Your task to perform on an android device: Empty the shopping cart on ebay.com. Add "usb-c to usb-b" to the cart on ebay.com, then select checkout. Image 0: 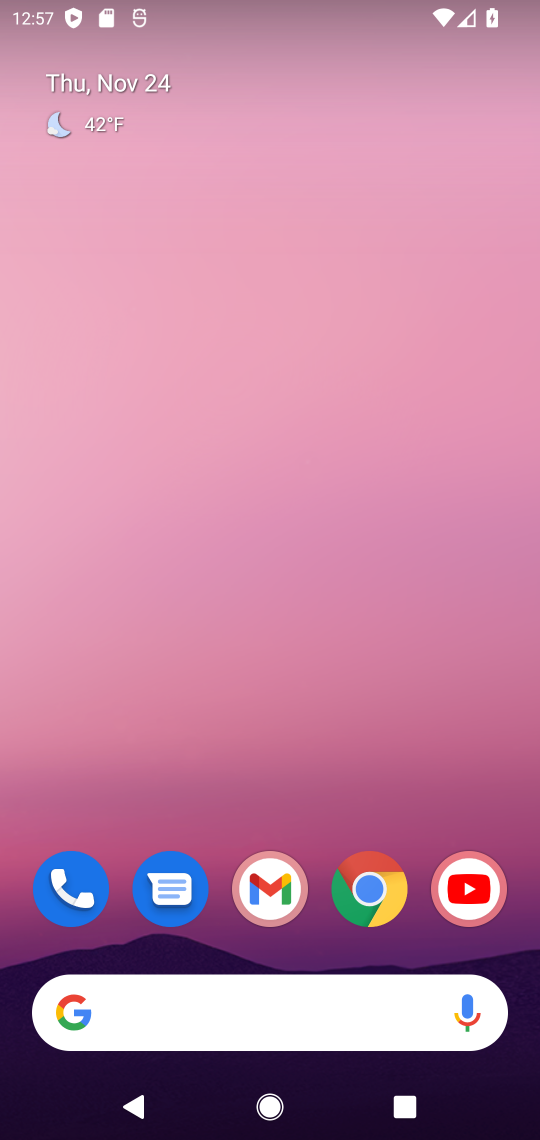
Step 0: click (371, 886)
Your task to perform on an android device: Empty the shopping cart on ebay.com. Add "usb-c to usb-b" to the cart on ebay.com, then select checkout. Image 1: 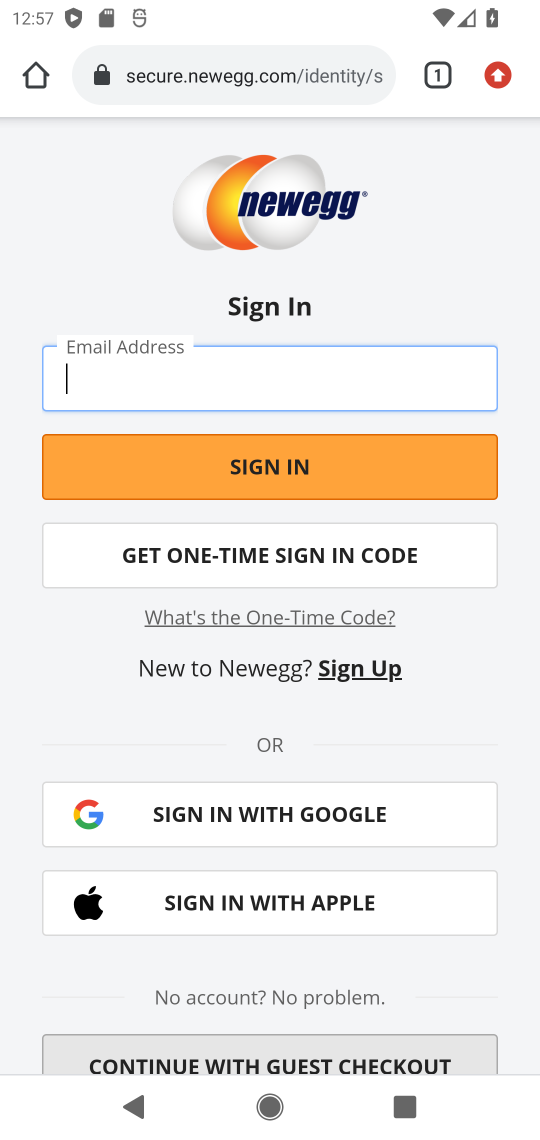
Step 1: click (198, 85)
Your task to perform on an android device: Empty the shopping cart on ebay.com. Add "usb-c to usb-b" to the cart on ebay.com, then select checkout. Image 2: 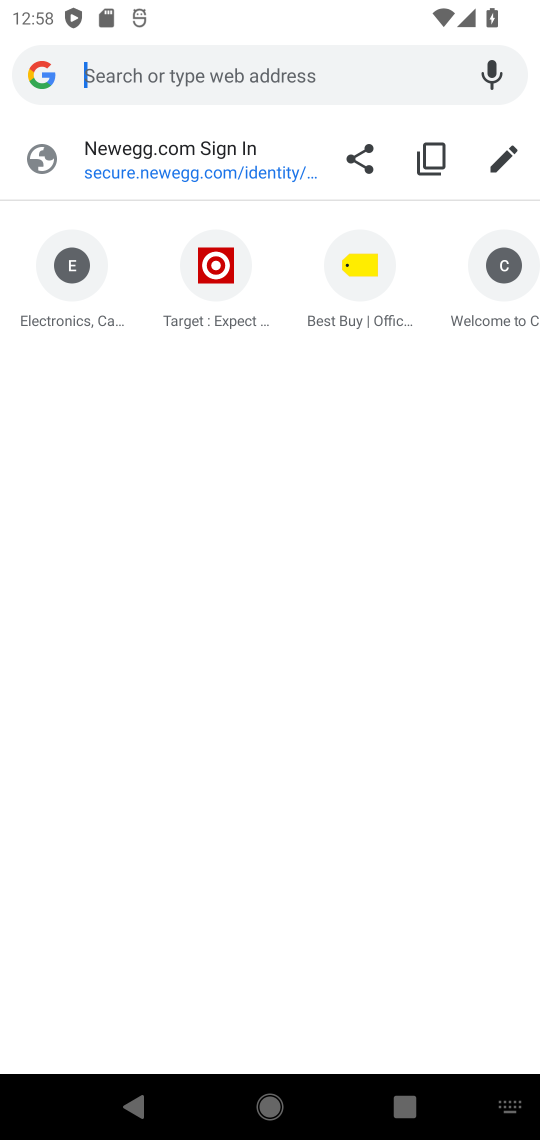
Step 2: type "ebay.com"
Your task to perform on an android device: Empty the shopping cart on ebay.com. Add "usb-c to usb-b" to the cart on ebay.com, then select checkout. Image 3: 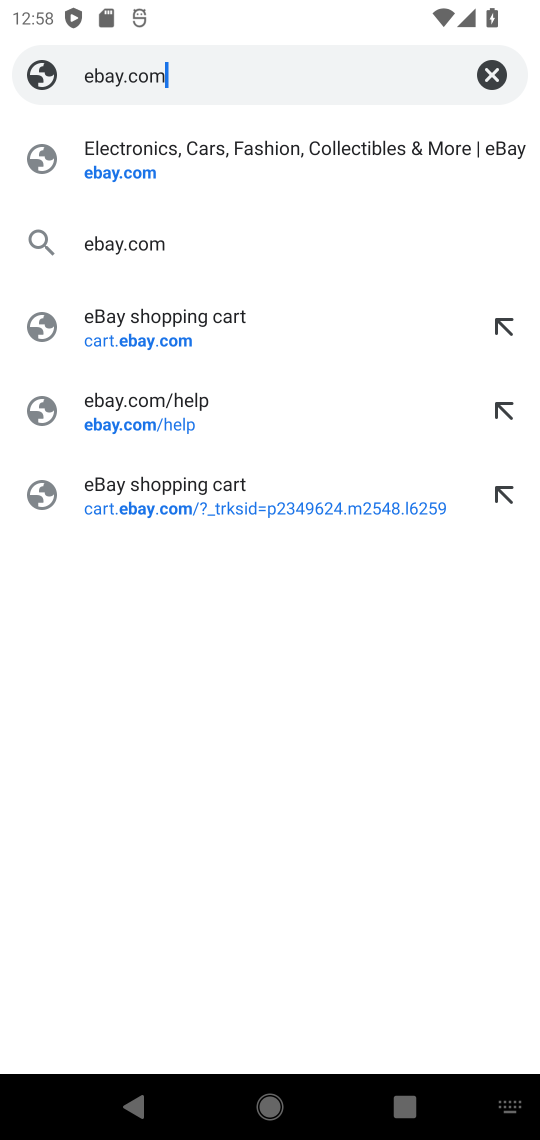
Step 3: click (101, 164)
Your task to perform on an android device: Empty the shopping cart on ebay.com. Add "usb-c to usb-b" to the cart on ebay.com, then select checkout. Image 4: 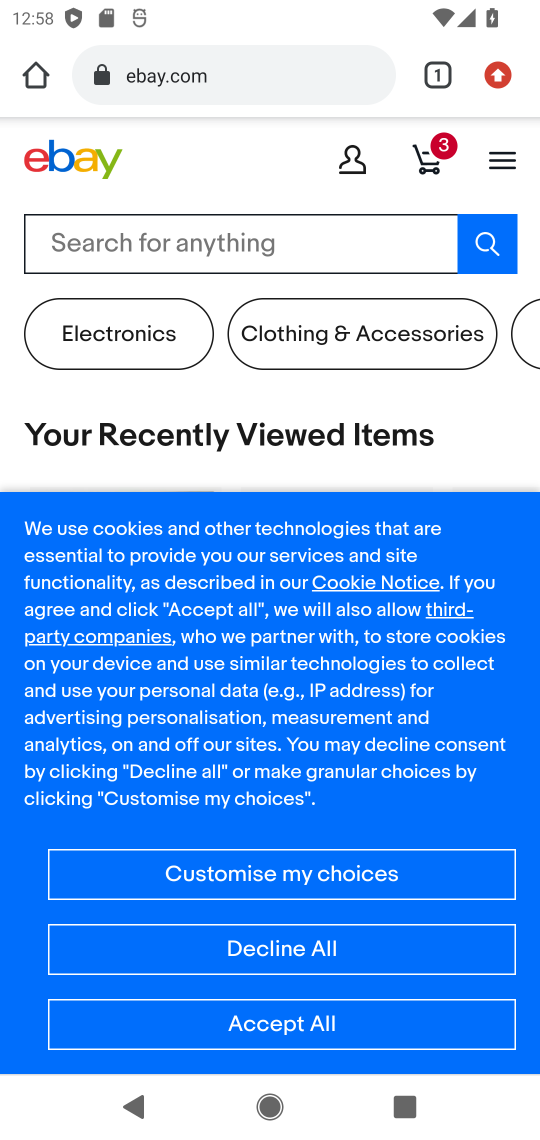
Step 4: click (435, 153)
Your task to perform on an android device: Empty the shopping cart on ebay.com. Add "usb-c to usb-b" to the cart on ebay.com, then select checkout. Image 5: 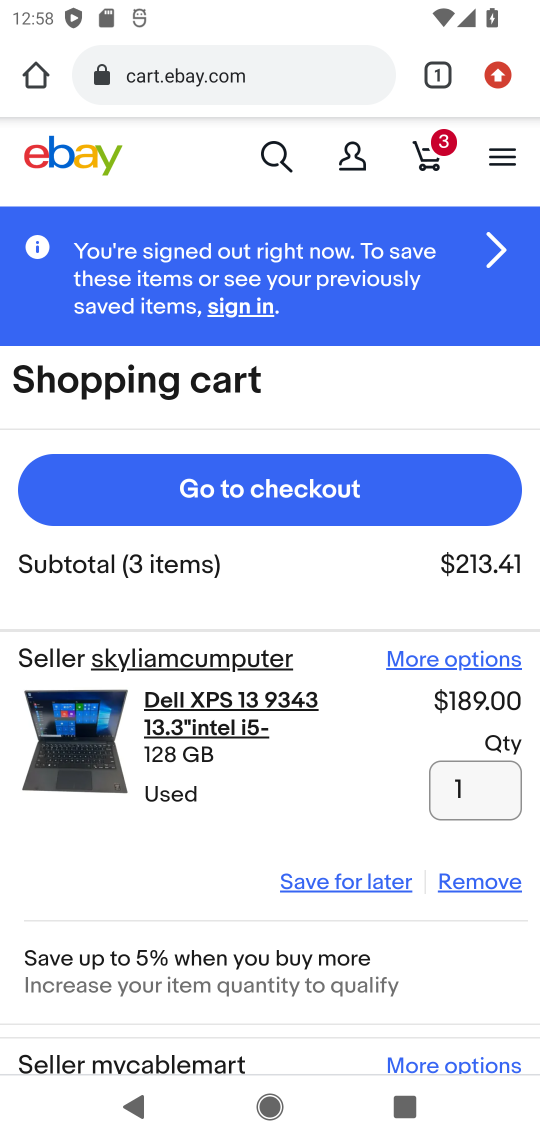
Step 5: click (496, 888)
Your task to perform on an android device: Empty the shopping cart on ebay.com. Add "usb-c to usb-b" to the cart on ebay.com, then select checkout. Image 6: 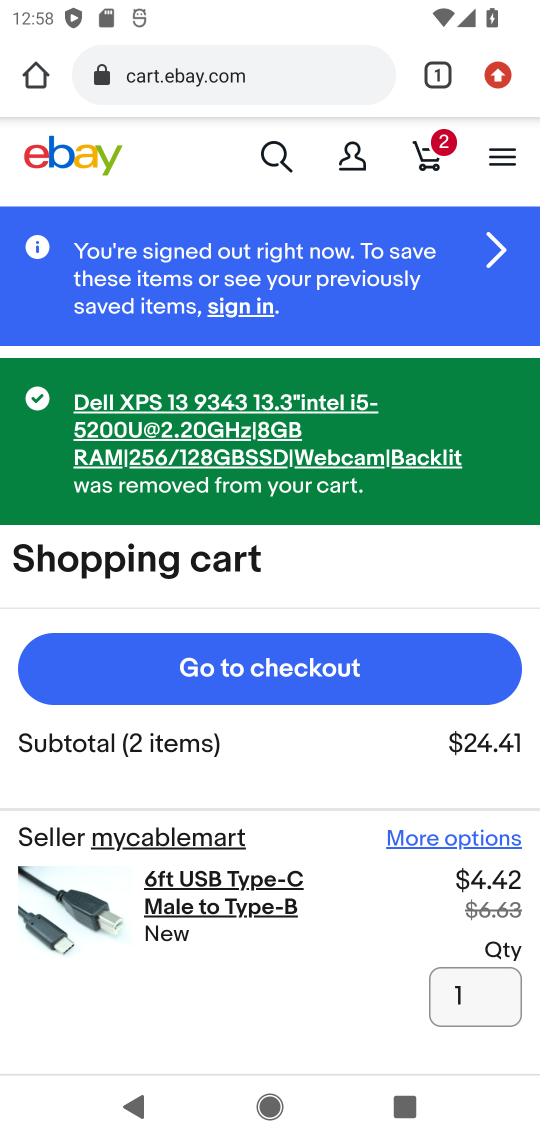
Step 6: drag from (340, 883) to (342, 530)
Your task to perform on an android device: Empty the shopping cart on ebay.com. Add "usb-c to usb-b" to the cart on ebay.com, then select checkout. Image 7: 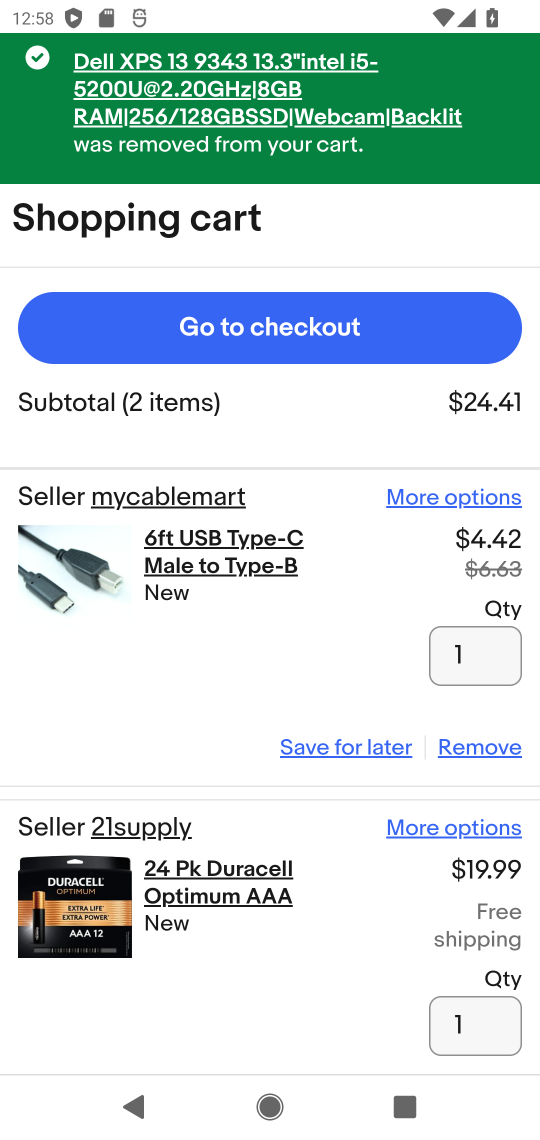
Step 7: click (467, 743)
Your task to perform on an android device: Empty the shopping cart on ebay.com. Add "usb-c to usb-b" to the cart on ebay.com, then select checkout. Image 8: 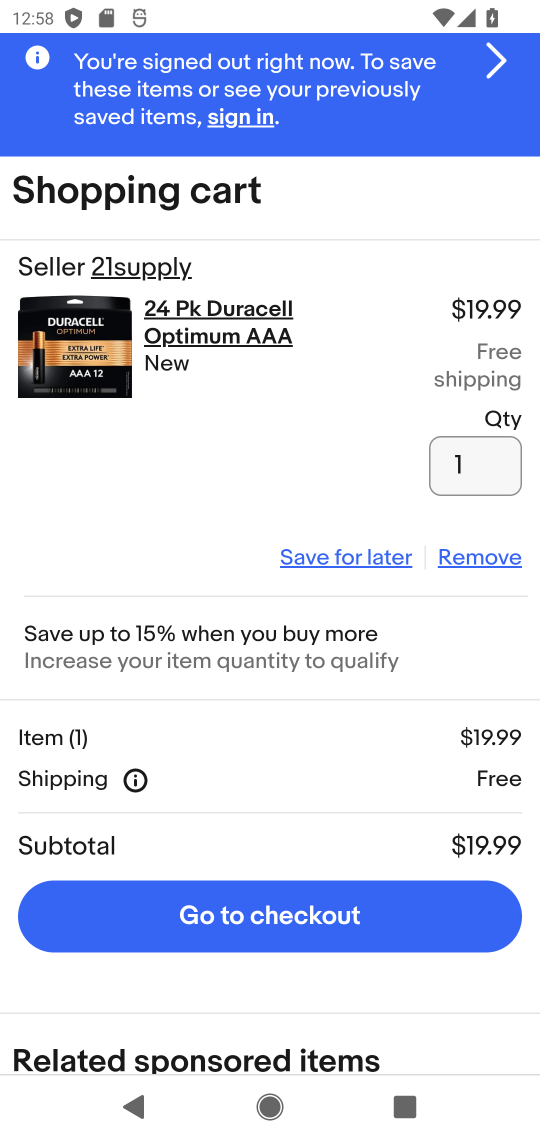
Step 8: drag from (337, 786) to (338, 678)
Your task to perform on an android device: Empty the shopping cart on ebay.com. Add "usb-c to usb-b" to the cart on ebay.com, then select checkout. Image 9: 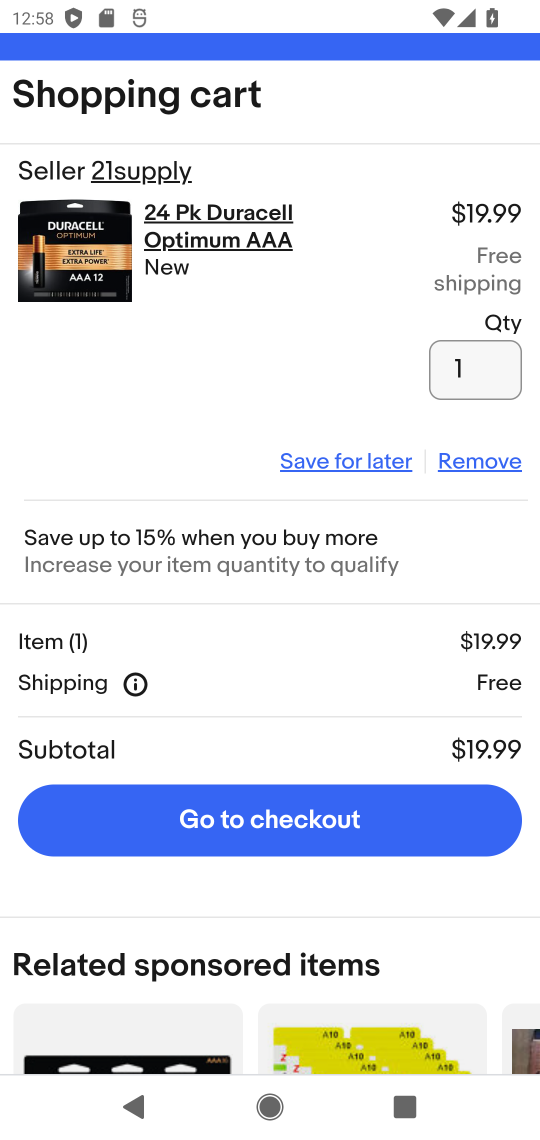
Step 9: click (486, 462)
Your task to perform on an android device: Empty the shopping cart on ebay.com. Add "usb-c to usb-b" to the cart on ebay.com, then select checkout. Image 10: 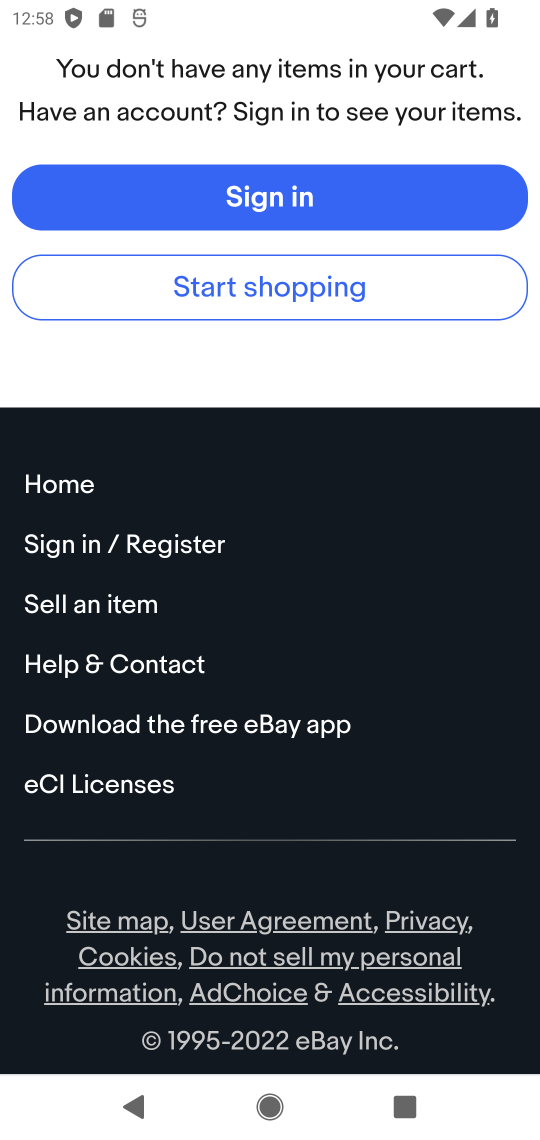
Step 10: drag from (366, 453) to (364, 655)
Your task to perform on an android device: Empty the shopping cart on ebay.com. Add "usb-c to usb-b" to the cart on ebay.com, then select checkout. Image 11: 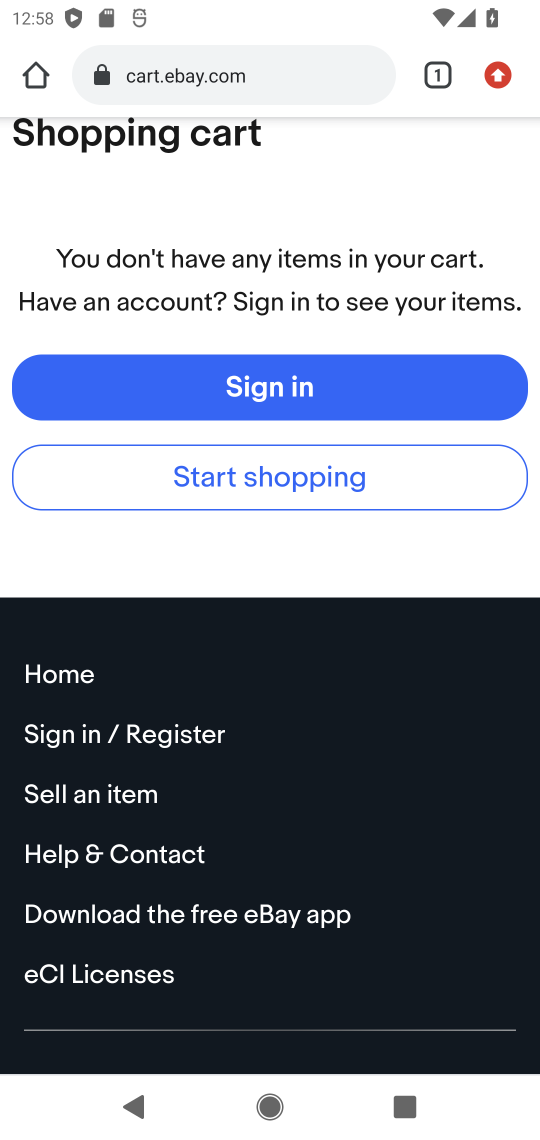
Step 11: drag from (364, 655) to (349, 846)
Your task to perform on an android device: Empty the shopping cart on ebay.com. Add "usb-c to usb-b" to the cart on ebay.com, then select checkout. Image 12: 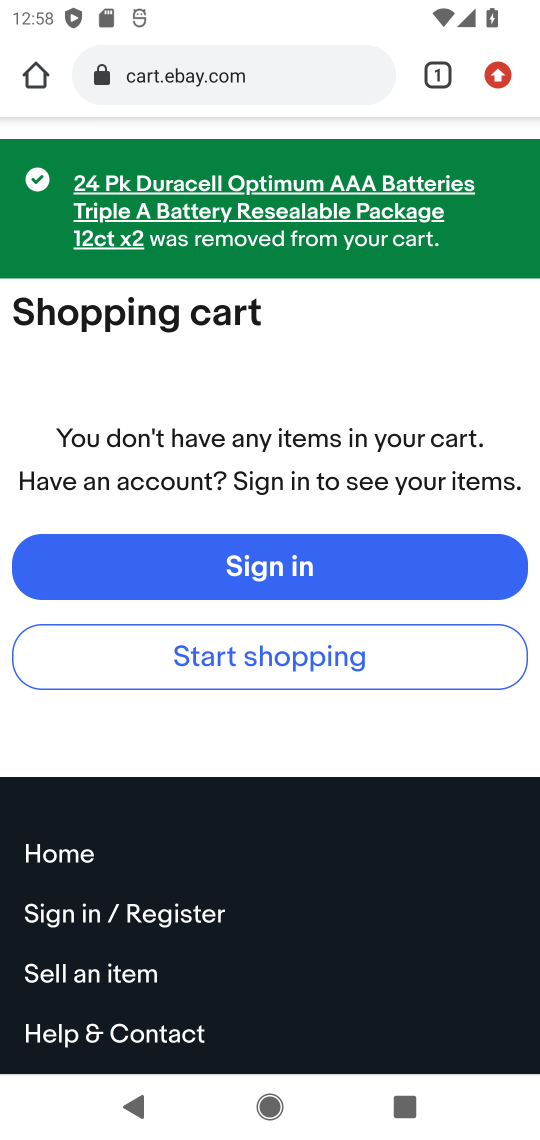
Step 12: drag from (265, 253) to (297, 454)
Your task to perform on an android device: Empty the shopping cart on ebay.com. Add "usb-c to usb-b" to the cart on ebay.com, then select checkout. Image 13: 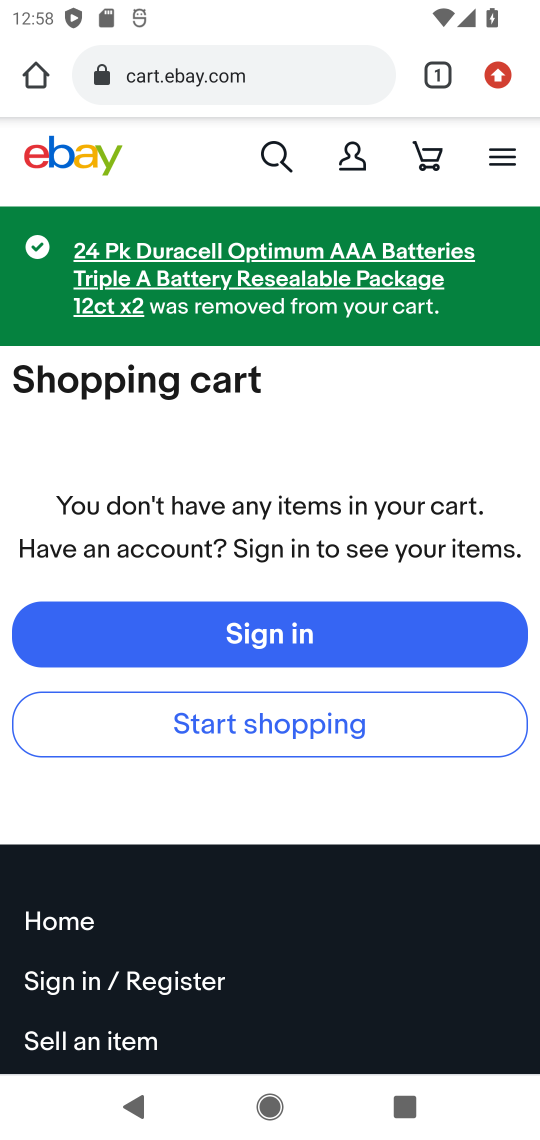
Step 13: click (266, 153)
Your task to perform on an android device: Empty the shopping cart on ebay.com. Add "usb-c to usb-b" to the cart on ebay.com, then select checkout. Image 14: 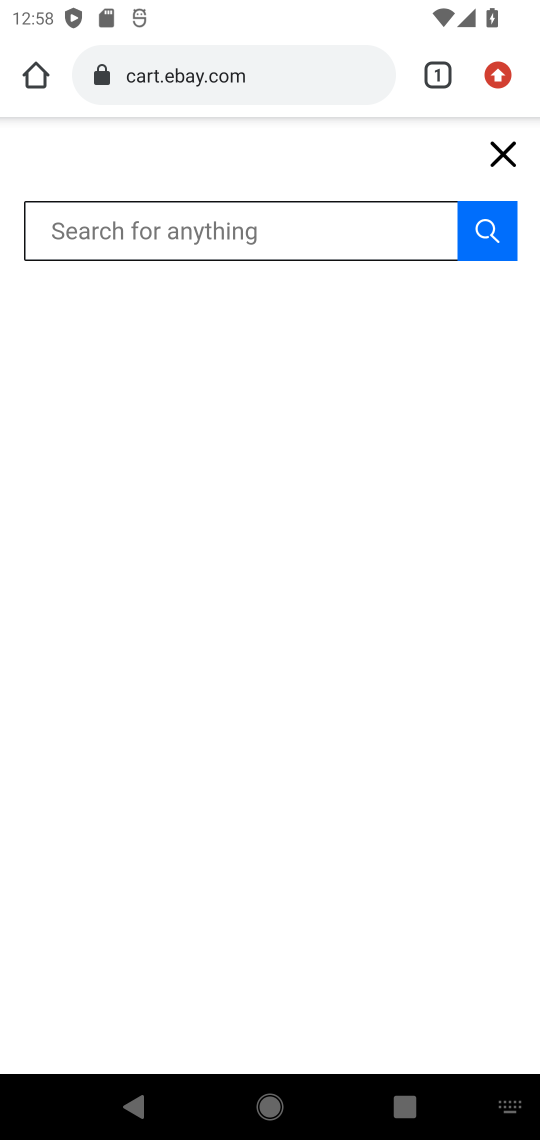
Step 14: type "usb-c to usb-b"
Your task to perform on an android device: Empty the shopping cart on ebay.com. Add "usb-c to usb-b" to the cart on ebay.com, then select checkout. Image 15: 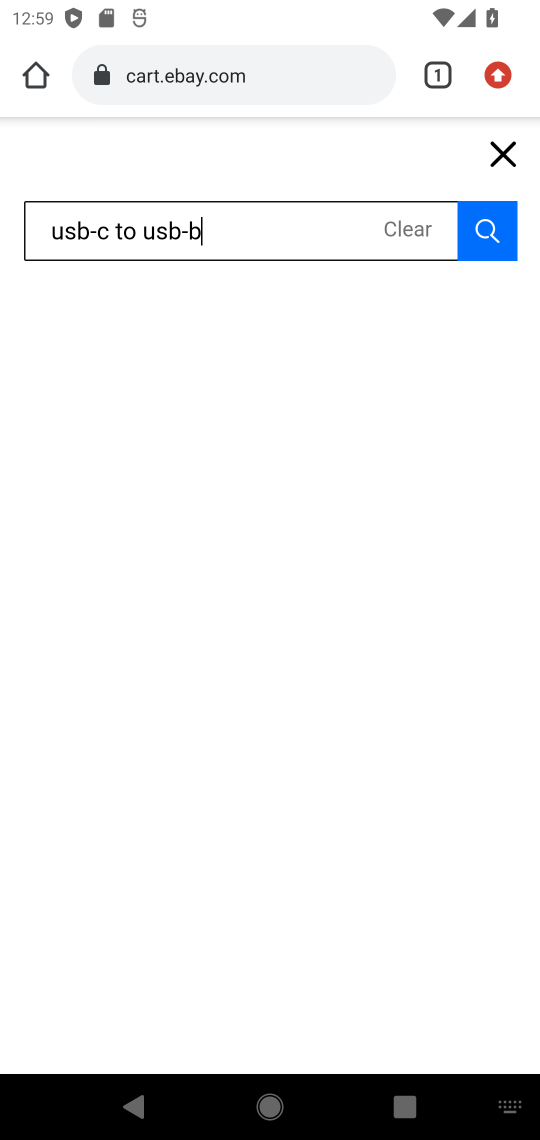
Step 15: click (485, 229)
Your task to perform on an android device: Empty the shopping cart on ebay.com. Add "usb-c to usb-b" to the cart on ebay.com, then select checkout. Image 16: 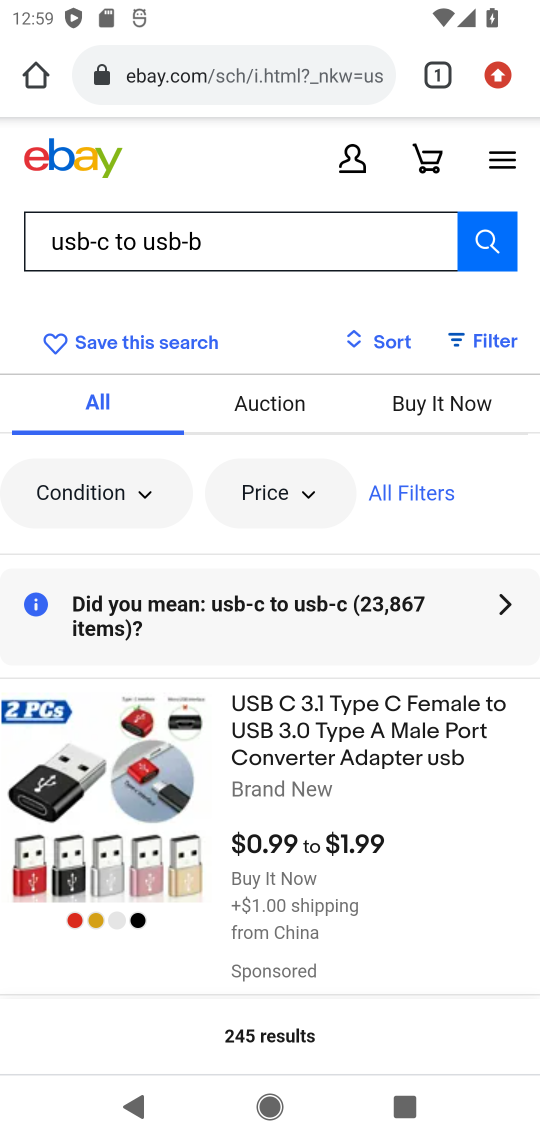
Step 16: drag from (93, 822) to (115, 502)
Your task to perform on an android device: Empty the shopping cart on ebay.com. Add "usb-c to usb-b" to the cart on ebay.com, then select checkout. Image 17: 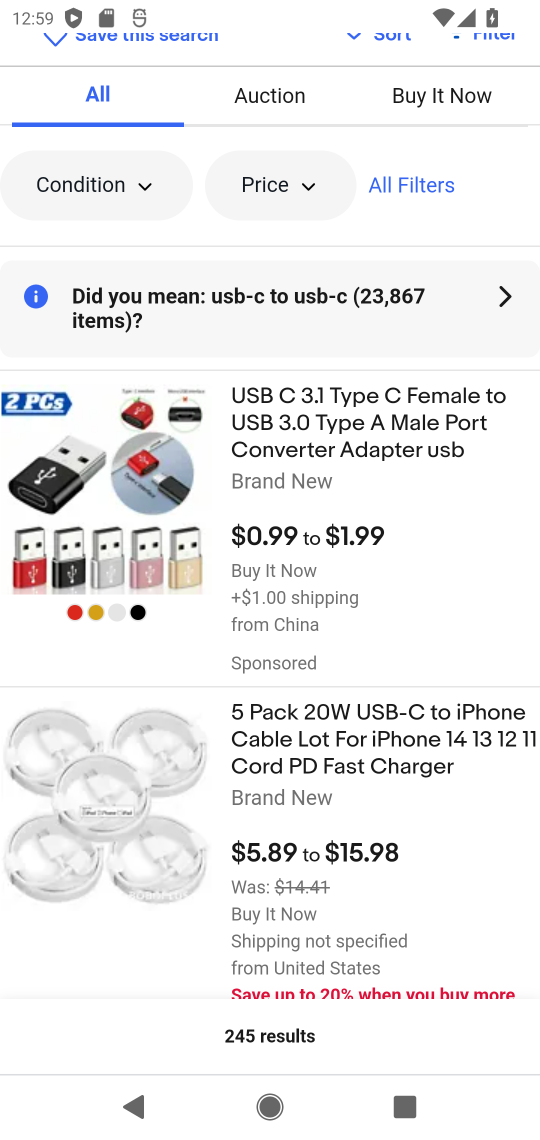
Step 17: drag from (106, 793) to (113, 545)
Your task to perform on an android device: Empty the shopping cart on ebay.com. Add "usb-c to usb-b" to the cart on ebay.com, then select checkout. Image 18: 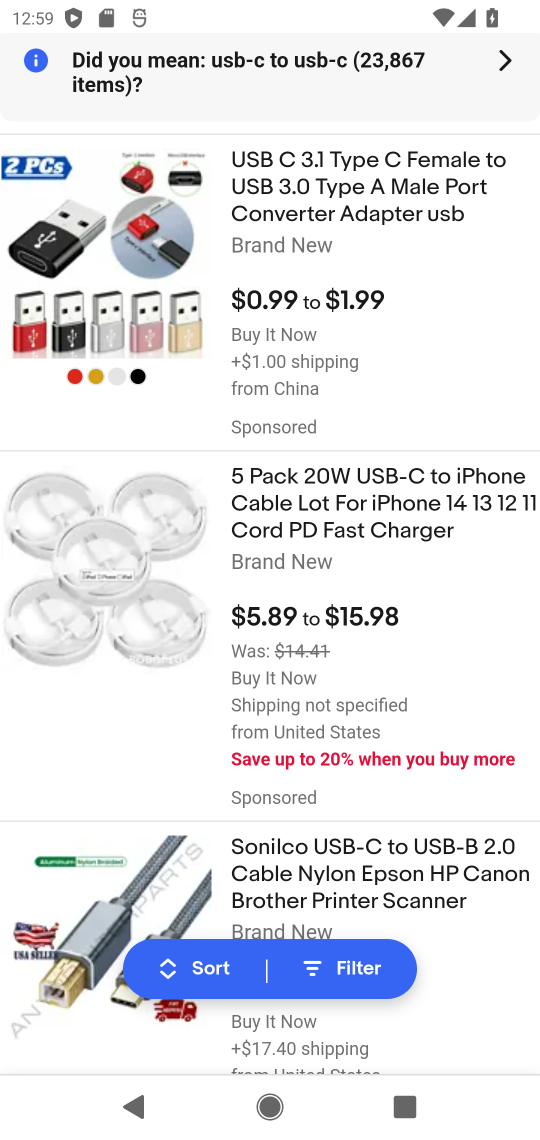
Step 18: drag from (107, 663) to (107, 519)
Your task to perform on an android device: Empty the shopping cart on ebay.com. Add "usb-c to usb-b" to the cart on ebay.com, then select checkout. Image 19: 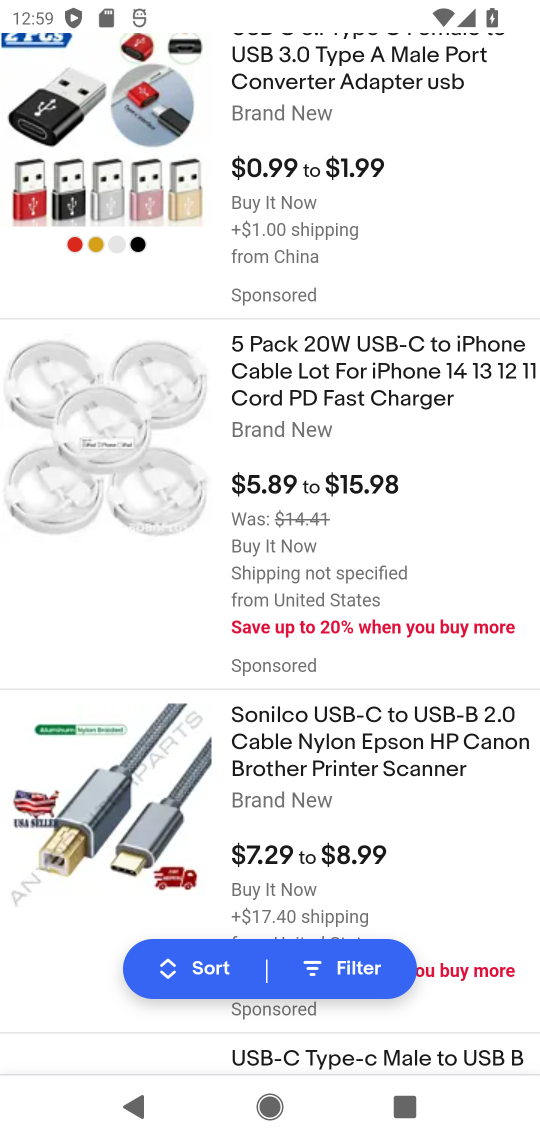
Step 19: drag from (107, 834) to (110, 660)
Your task to perform on an android device: Empty the shopping cart on ebay.com. Add "usb-c to usb-b" to the cart on ebay.com, then select checkout. Image 20: 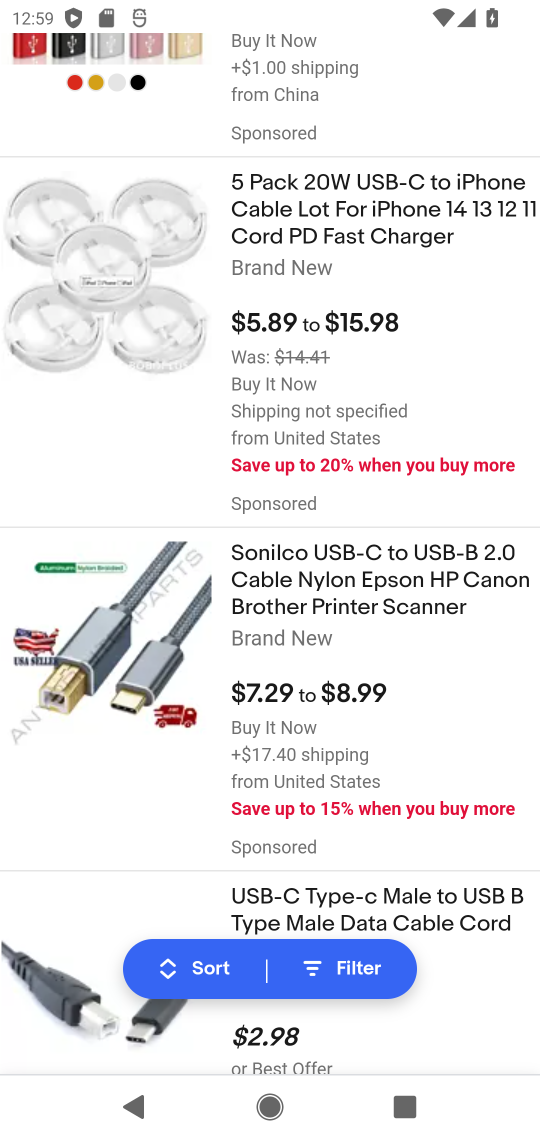
Step 20: click (178, 657)
Your task to perform on an android device: Empty the shopping cart on ebay.com. Add "usb-c to usb-b" to the cart on ebay.com, then select checkout. Image 21: 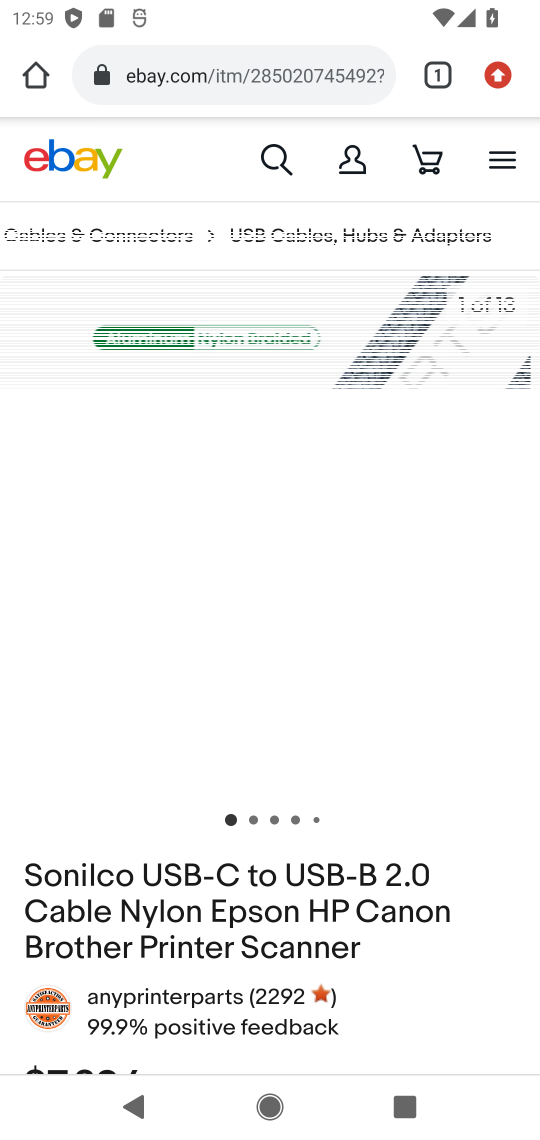
Step 21: drag from (272, 882) to (290, 400)
Your task to perform on an android device: Empty the shopping cart on ebay.com. Add "usb-c to usb-b" to the cart on ebay.com, then select checkout. Image 22: 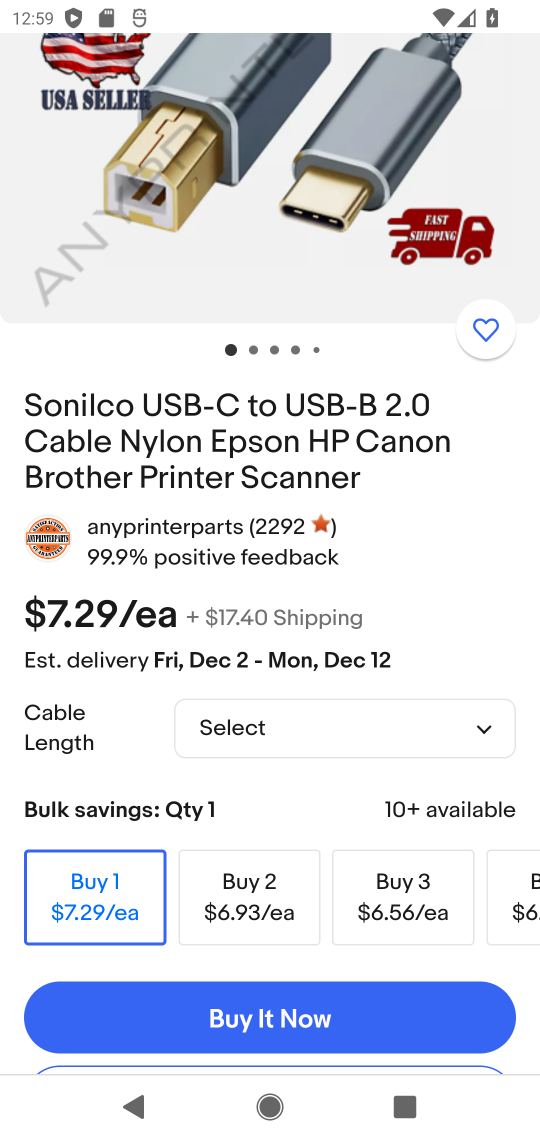
Step 22: drag from (313, 859) to (316, 641)
Your task to perform on an android device: Empty the shopping cart on ebay.com. Add "usb-c to usb-b" to the cart on ebay.com, then select checkout. Image 23: 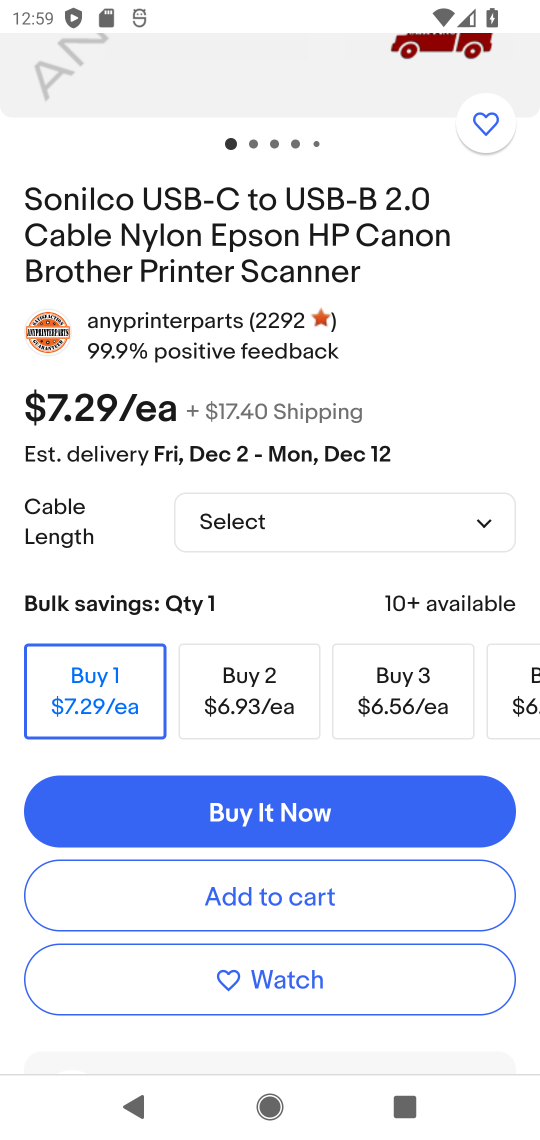
Step 23: click (244, 892)
Your task to perform on an android device: Empty the shopping cart on ebay.com. Add "usb-c to usb-b" to the cart on ebay.com, then select checkout. Image 24: 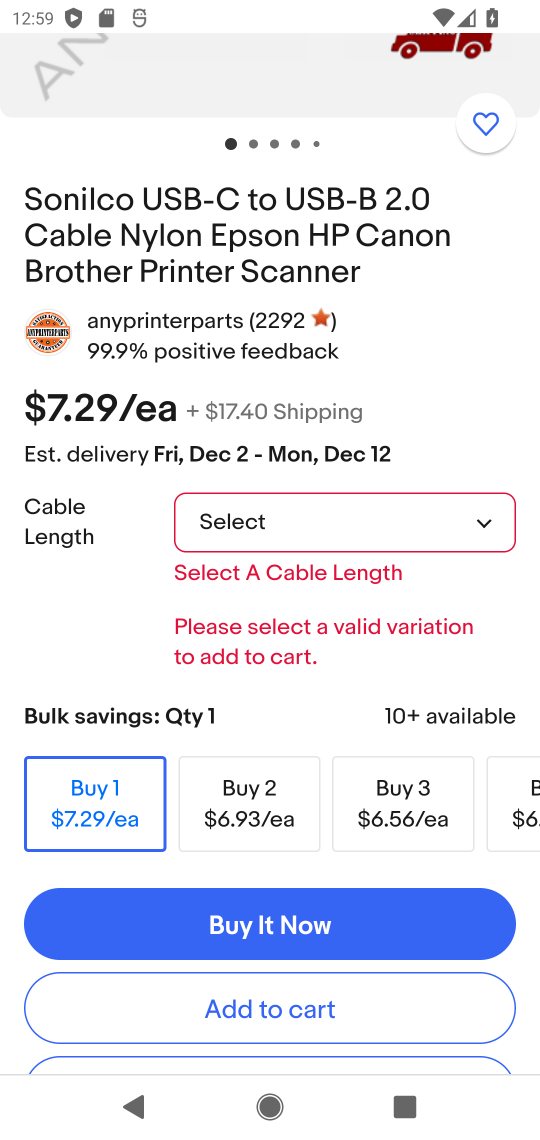
Step 24: click (485, 519)
Your task to perform on an android device: Empty the shopping cart on ebay.com. Add "usb-c to usb-b" to the cart on ebay.com, then select checkout. Image 25: 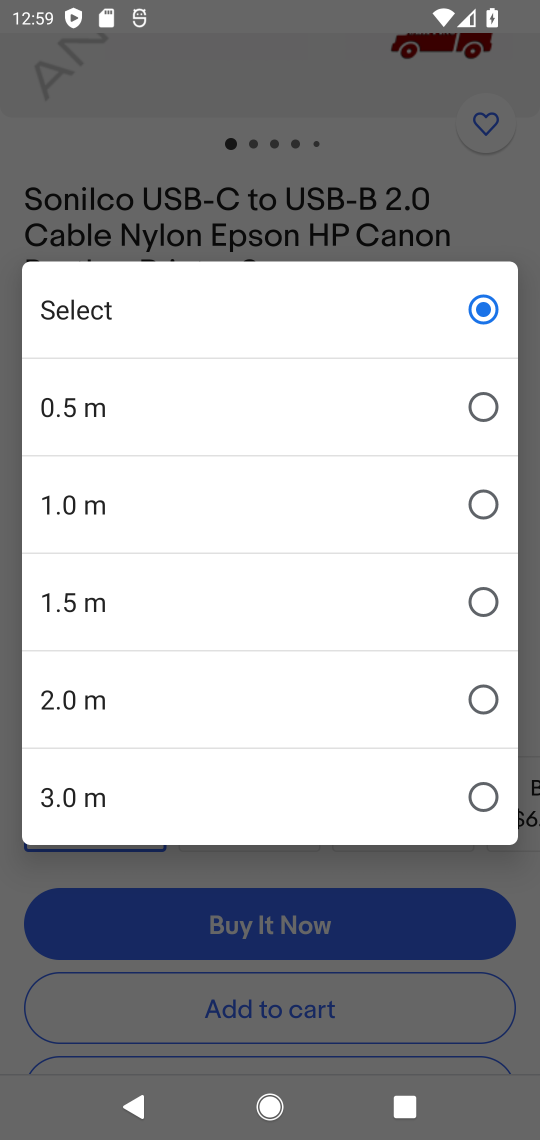
Step 25: click (77, 414)
Your task to perform on an android device: Empty the shopping cart on ebay.com. Add "usb-c to usb-b" to the cart on ebay.com, then select checkout. Image 26: 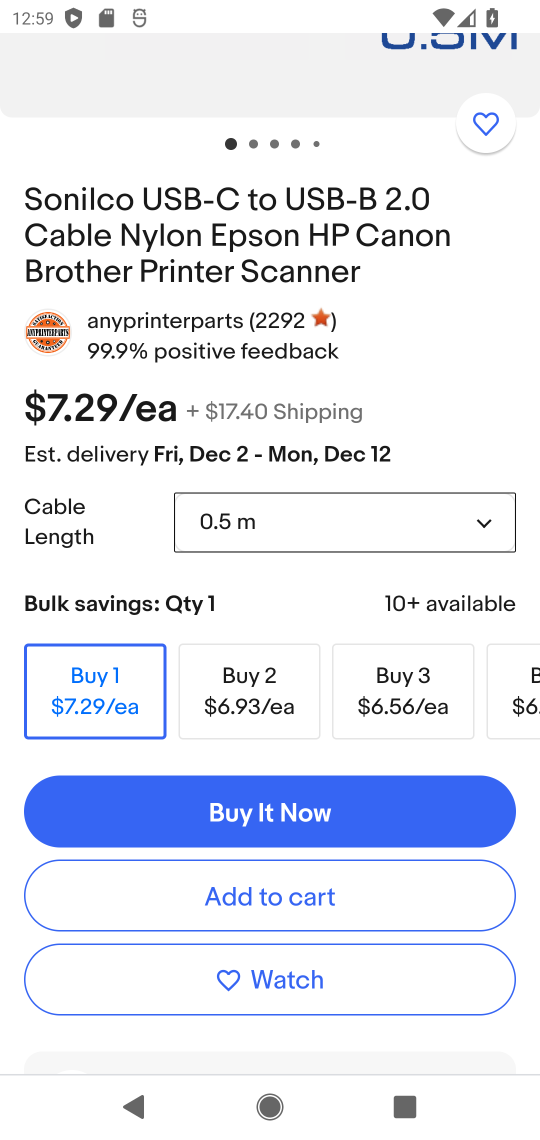
Step 26: click (234, 899)
Your task to perform on an android device: Empty the shopping cart on ebay.com. Add "usb-c to usb-b" to the cart on ebay.com, then select checkout. Image 27: 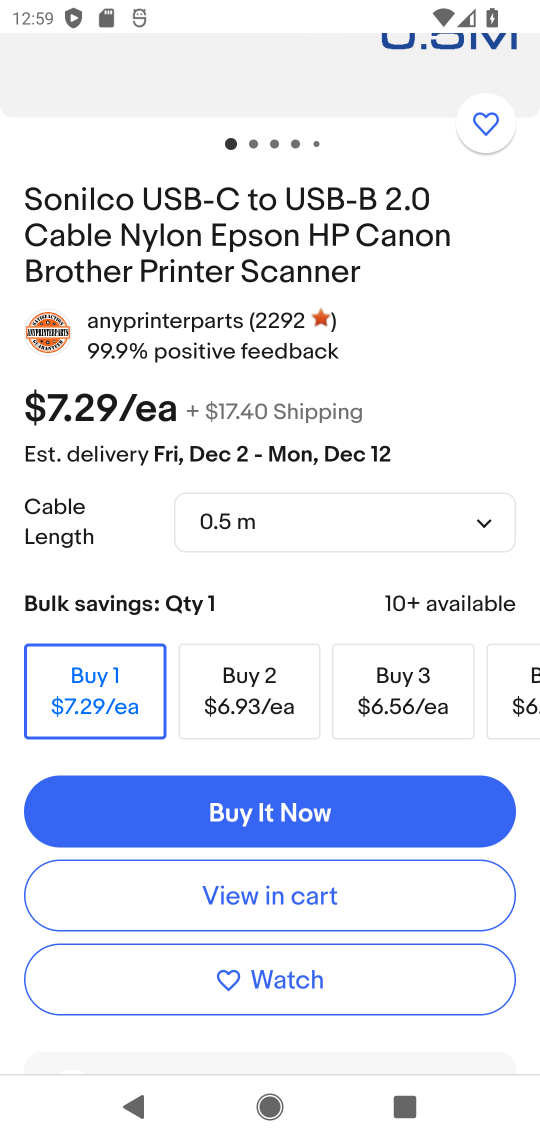
Step 27: click (234, 899)
Your task to perform on an android device: Empty the shopping cart on ebay.com. Add "usb-c to usb-b" to the cart on ebay.com, then select checkout. Image 28: 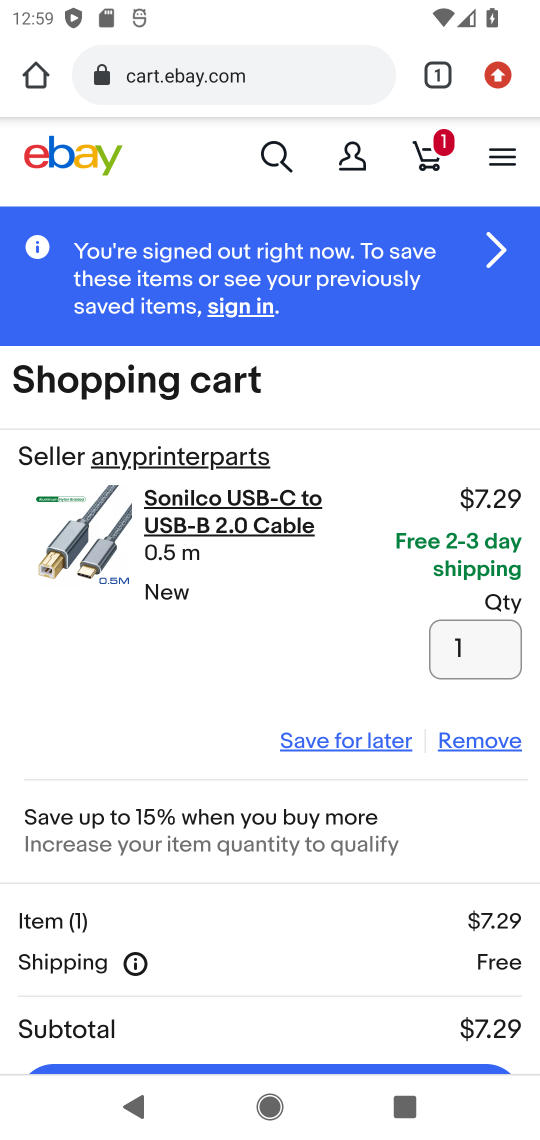
Step 28: drag from (234, 899) to (261, 416)
Your task to perform on an android device: Empty the shopping cart on ebay.com. Add "usb-c to usb-b" to the cart on ebay.com, then select checkout. Image 29: 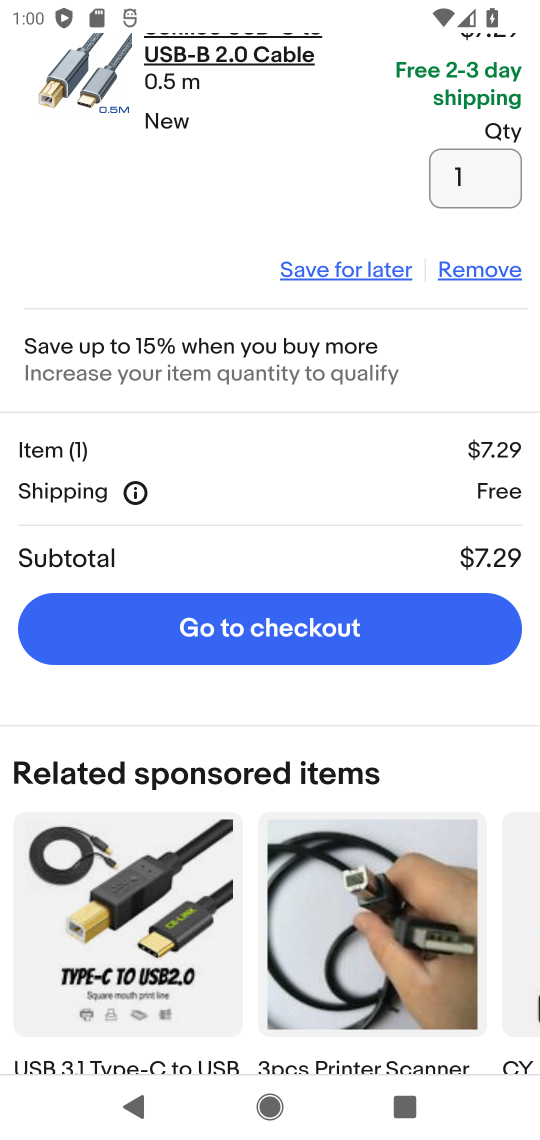
Step 29: click (246, 628)
Your task to perform on an android device: Empty the shopping cart on ebay.com. Add "usb-c to usb-b" to the cart on ebay.com, then select checkout. Image 30: 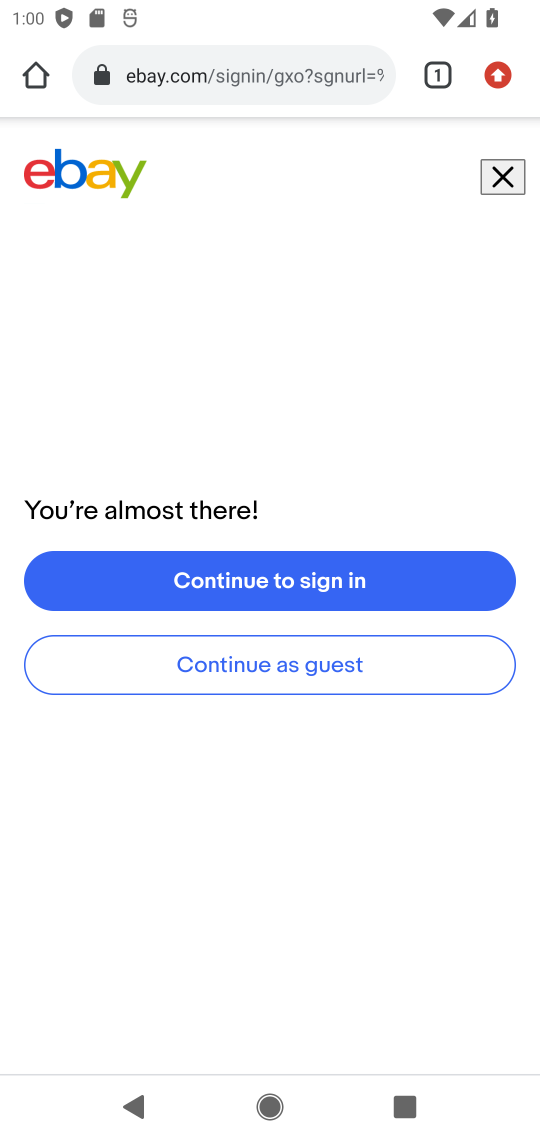
Step 30: task complete